Your task to perform on an android device: change keyboard looks Image 0: 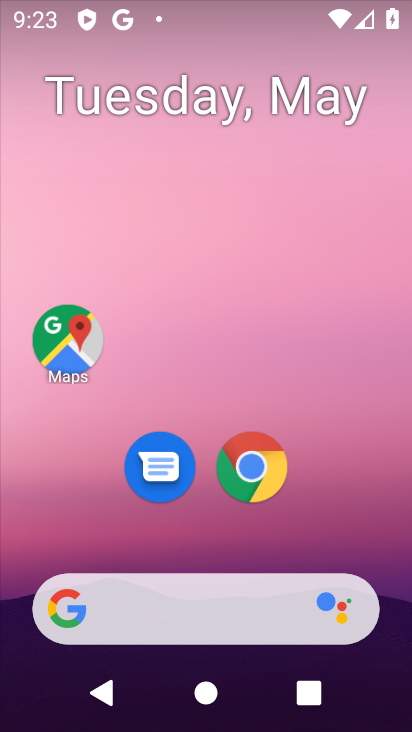
Step 0: drag from (342, 548) to (246, 15)
Your task to perform on an android device: change keyboard looks Image 1: 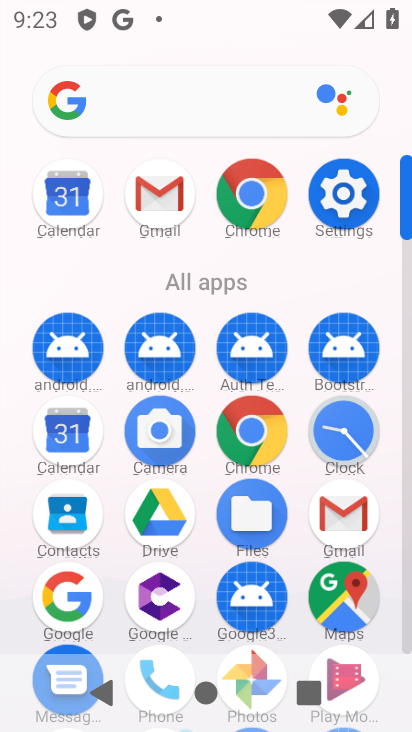
Step 1: drag from (12, 587) to (37, 223)
Your task to perform on an android device: change keyboard looks Image 2: 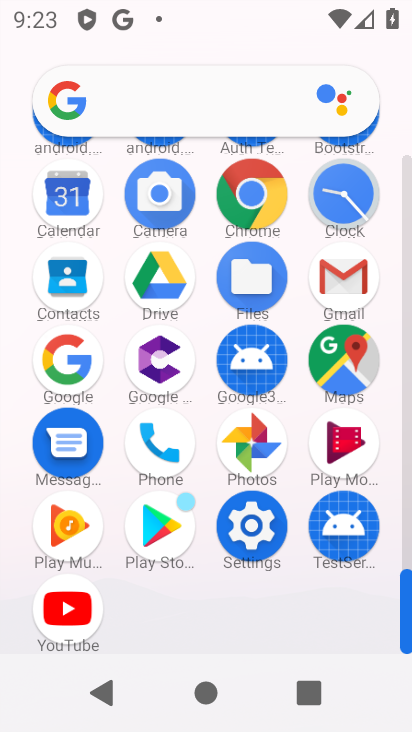
Step 2: click (250, 524)
Your task to perform on an android device: change keyboard looks Image 3: 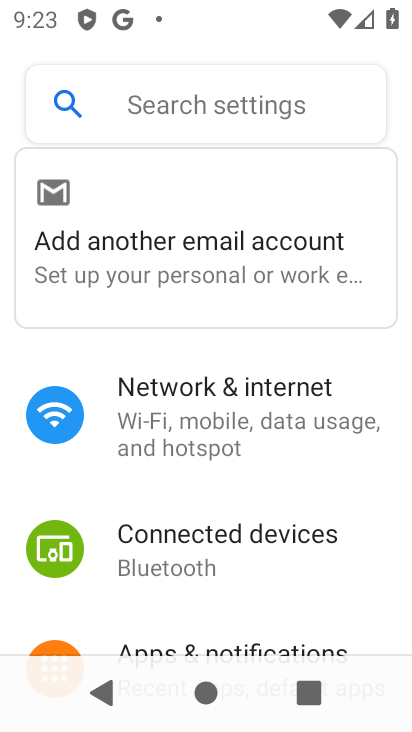
Step 3: drag from (291, 607) to (292, 137)
Your task to perform on an android device: change keyboard looks Image 4: 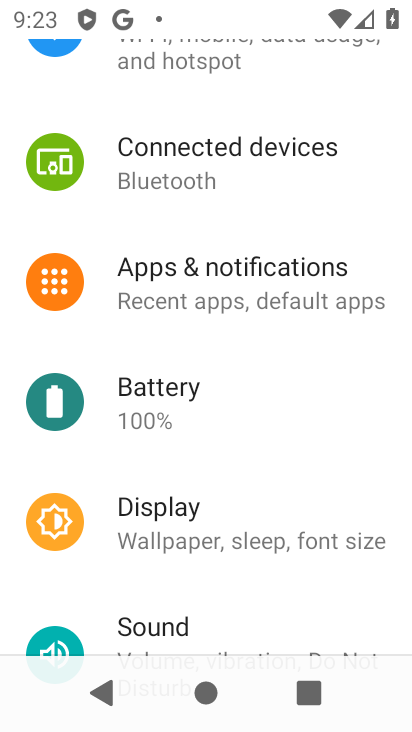
Step 4: drag from (294, 532) to (303, 75)
Your task to perform on an android device: change keyboard looks Image 5: 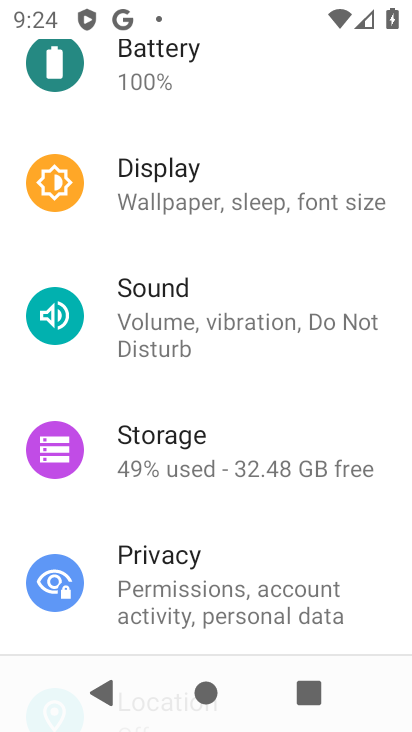
Step 5: drag from (242, 510) to (275, 139)
Your task to perform on an android device: change keyboard looks Image 6: 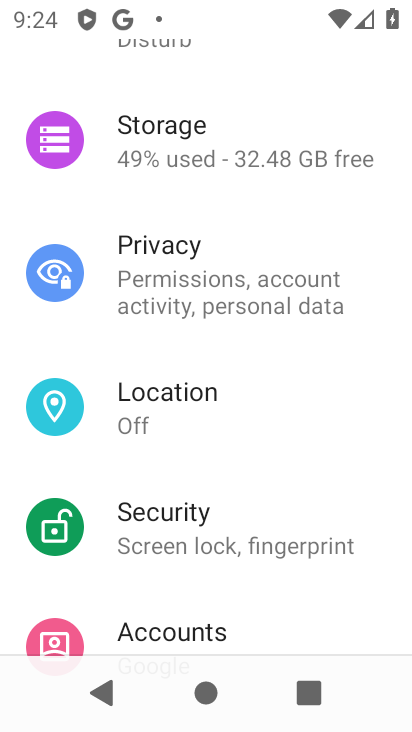
Step 6: drag from (257, 580) to (267, 152)
Your task to perform on an android device: change keyboard looks Image 7: 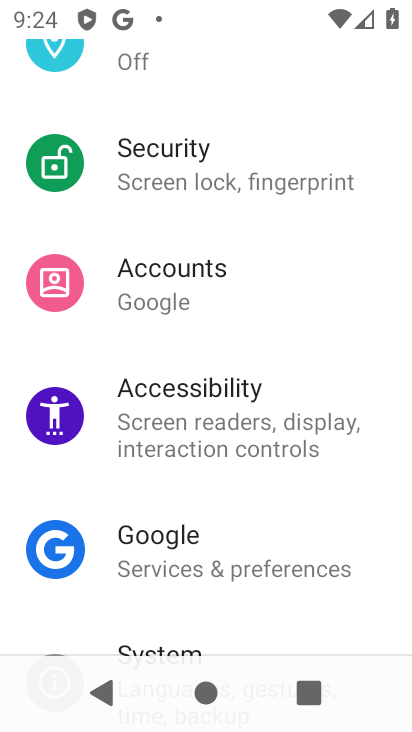
Step 7: drag from (267, 542) to (274, 116)
Your task to perform on an android device: change keyboard looks Image 8: 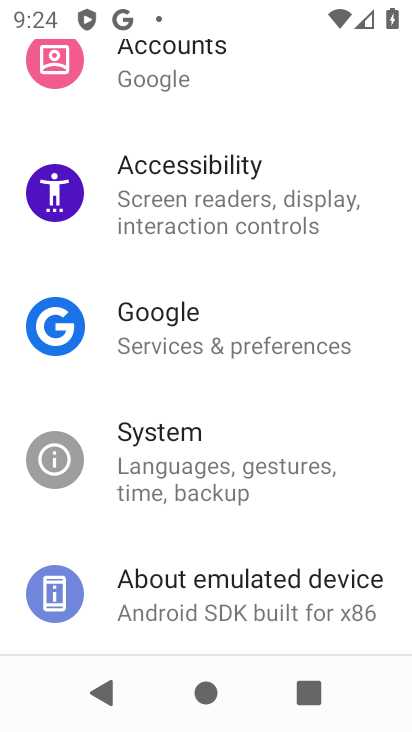
Step 8: drag from (244, 494) to (257, 100)
Your task to perform on an android device: change keyboard looks Image 9: 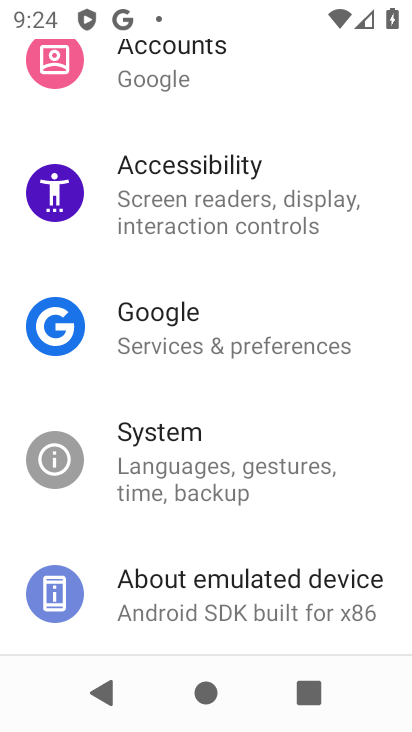
Step 9: click (215, 468)
Your task to perform on an android device: change keyboard looks Image 10: 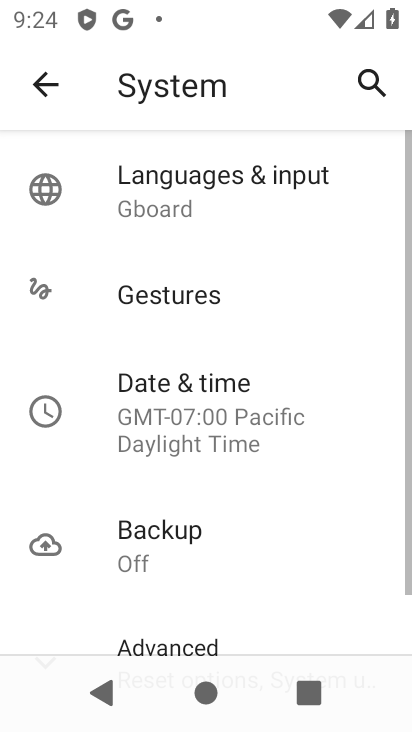
Step 10: click (225, 197)
Your task to perform on an android device: change keyboard looks Image 11: 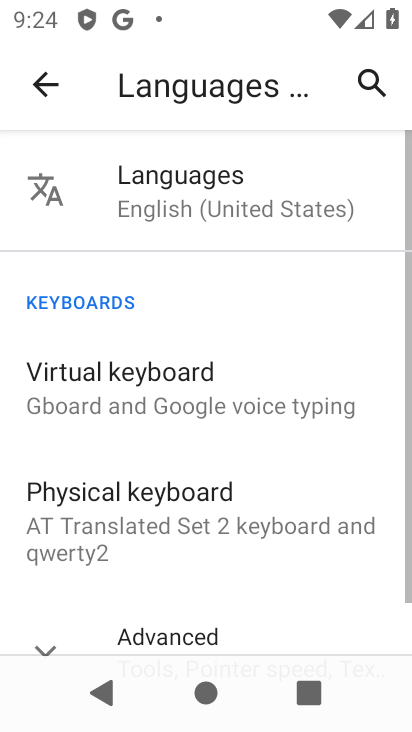
Step 11: click (151, 401)
Your task to perform on an android device: change keyboard looks Image 12: 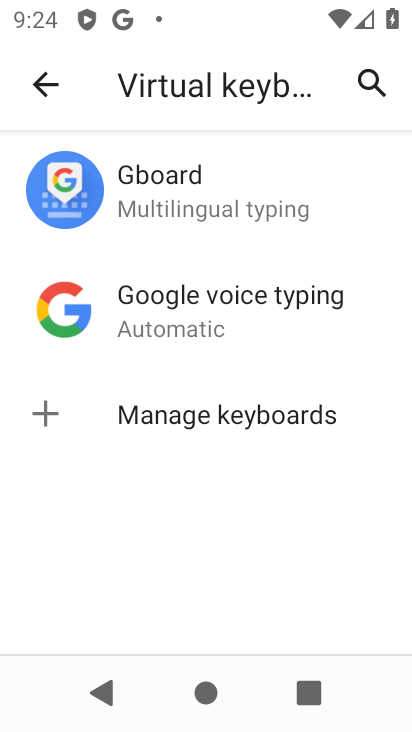
Step 12: click (200, 200)
Your task to perform on an android device: change keyboard looks Image 13: 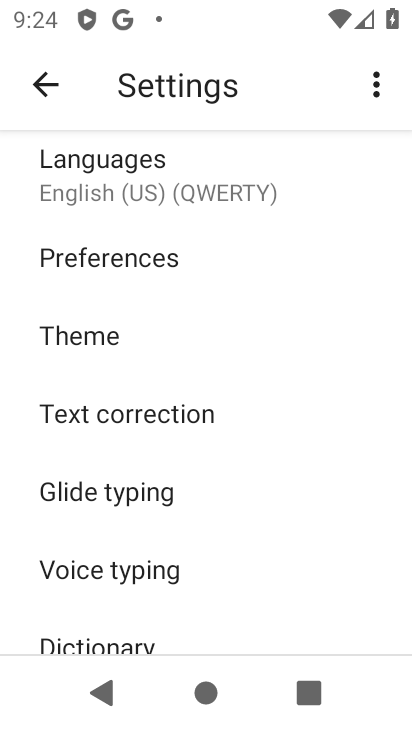
Step 13: click (117, 330)
Your task to perform on an android device: change keyboard looks Image 14: 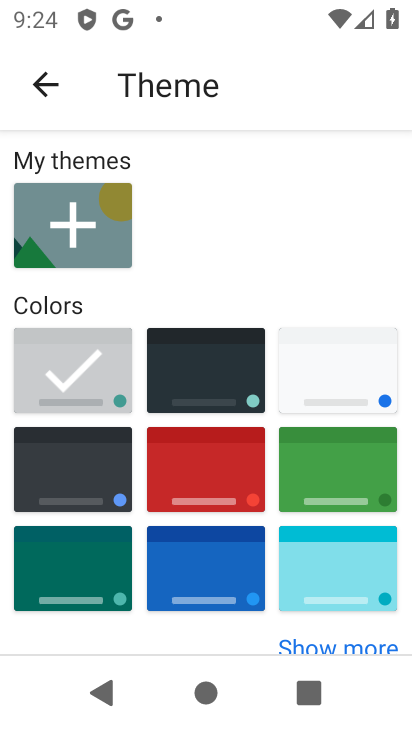
Step 14: click (188, 380)
Your task to perform on an android device: change keyboard looks Image 15: 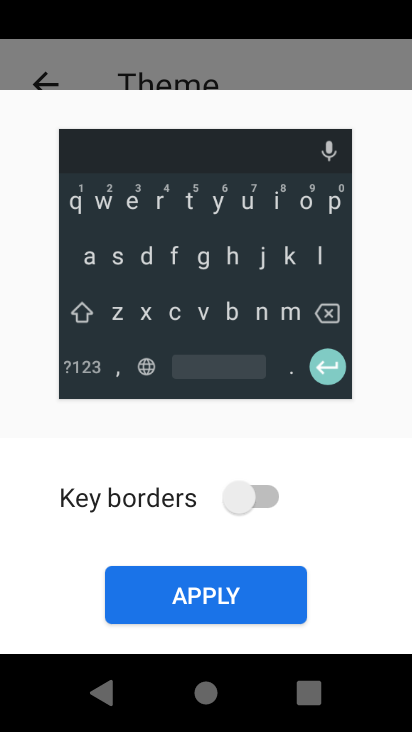
Step 15: click (220, 591)
Your task to perform on an android device: change keyboard looks Image 16: 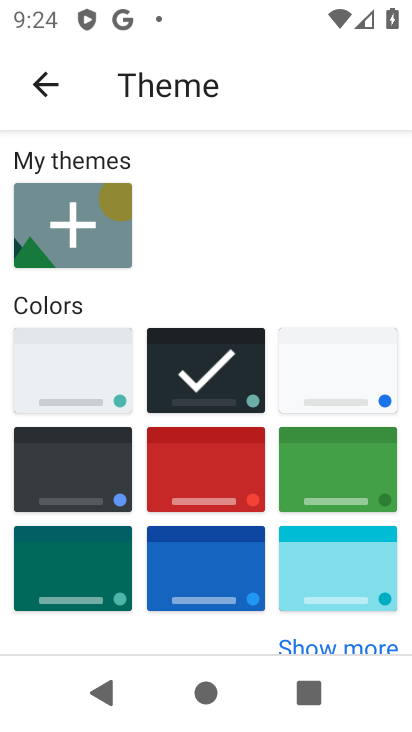
Step 16: task complete